Your task to perform on an android device: open app "Nova Launcher" (install if not already installed) Image 0: 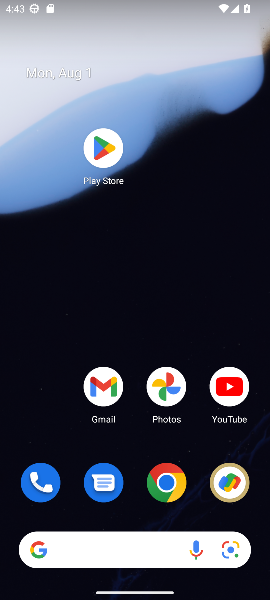
Step 0: click (100, 152)
Your task to perform on an android device: open app "Nova Launcher" (install if not already installed) Image 1: 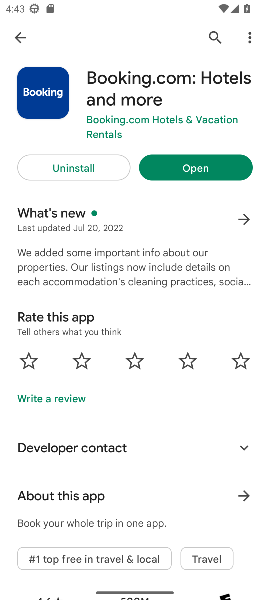
Step 1: click (216, 30)
Your task to perform on an android device: open app "Nova Launcher" (install if not already installed) Image 2: 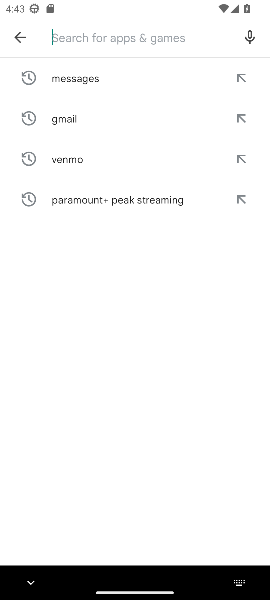
Step 2: type "Nova Launcher"
Your task to perform on an android device: open app "Nova Launcher" (install if not already installed) Image 3: 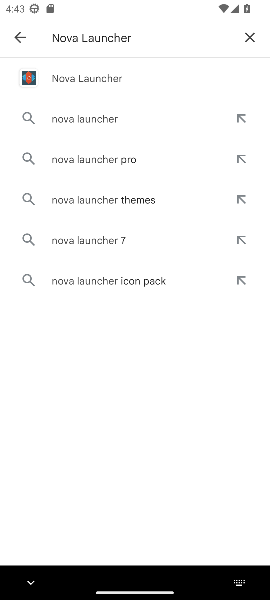
Step 3: click (103, 79)
Your task to perform on an android device: open app "Nova Launcher" (install if not already installed) Image 4: 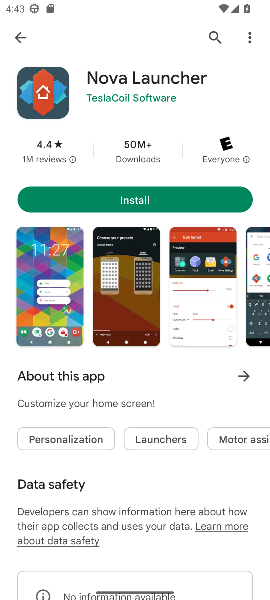
Step 4: click (148, 196)
Your task to perform on an android device: open app "Nova Launcher" (install if not already installed) Image 5: 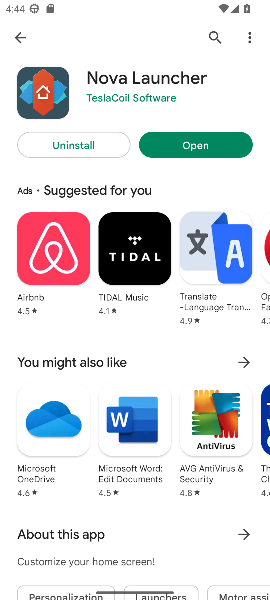
Step 5: click (195, 145)
Your task to perform on an android device: open app "Nova Launcher" (install if not already installed) Image 6: 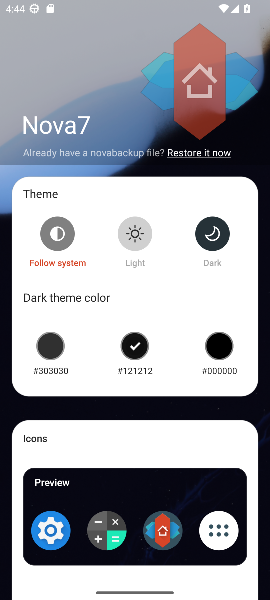
Step 6: task complete